Your task to perform on an android device: Show me the alarms in the clock app Image 0: 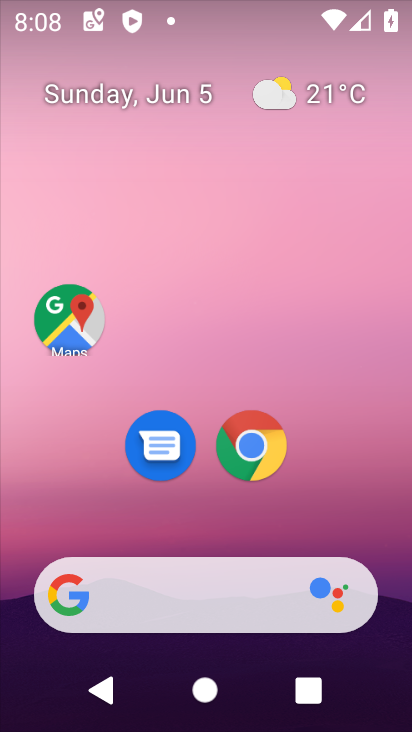
Step 0: drag from (347, 479) to (301, 84)
Your task to perform on an android device: Show me the alarms in the clock app Image 1: 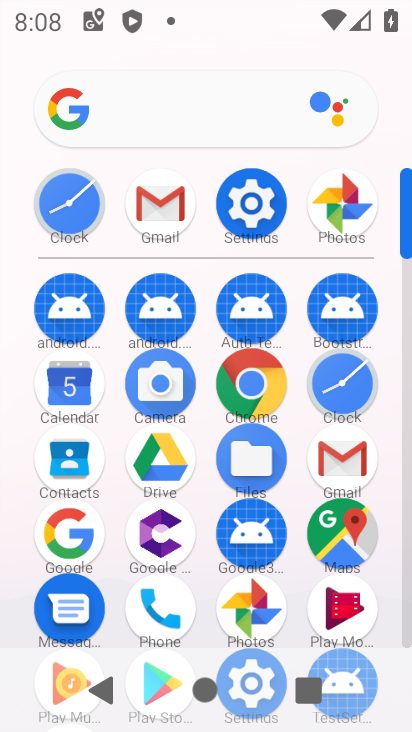
Step 1: click (343, 407)
Your task to perform on an android device: Show me the alarms in the clock app Image 2: 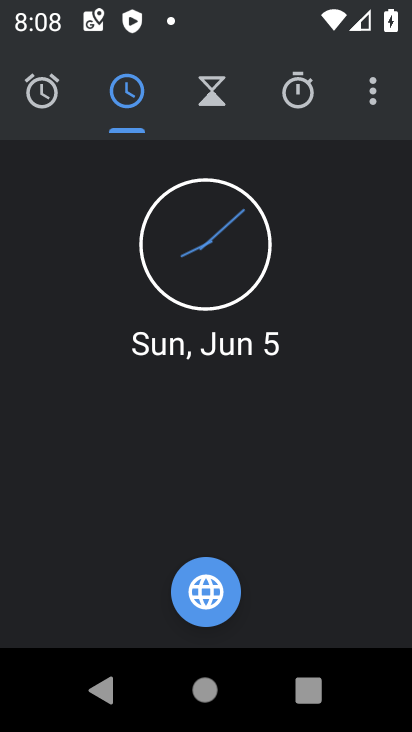
Step 2: click (34, 98)
Your task to perform on an android device: Show me the alarms in the clock app Image 3: 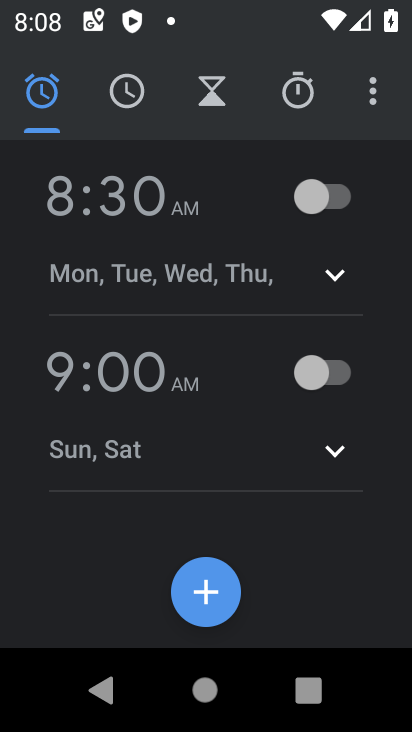
Step 3: task complete